Your task to perform on an android device: toggle airplane mode Image 0: 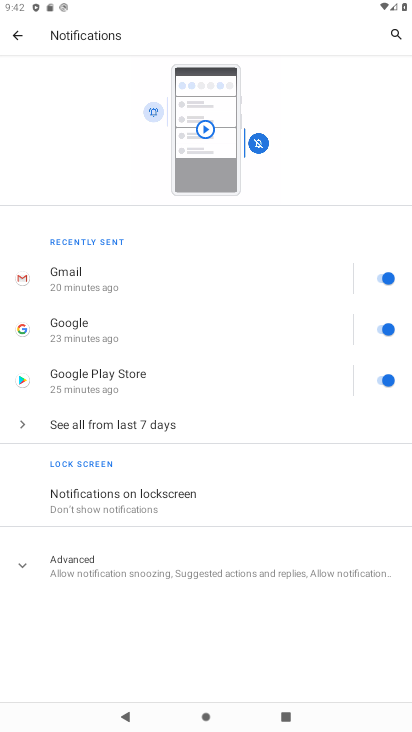
Step 0: press home button
Your task to perform on an android device: toggle airplane mode Image 1: 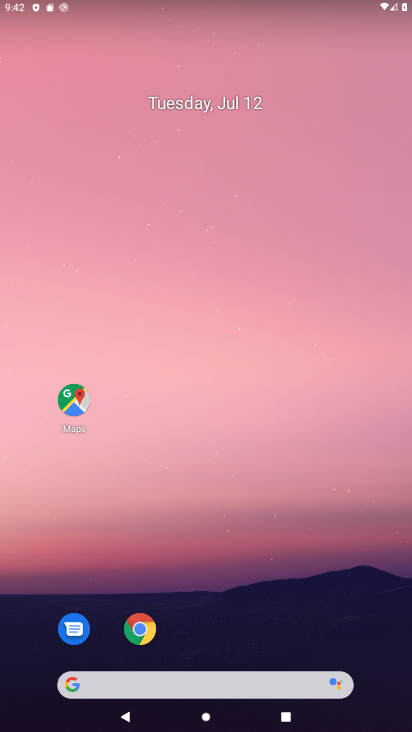
Step 1: drag from (273, 667) to (136, 95)
Your task to perform on an android device: toggle airplane mode Image 2: 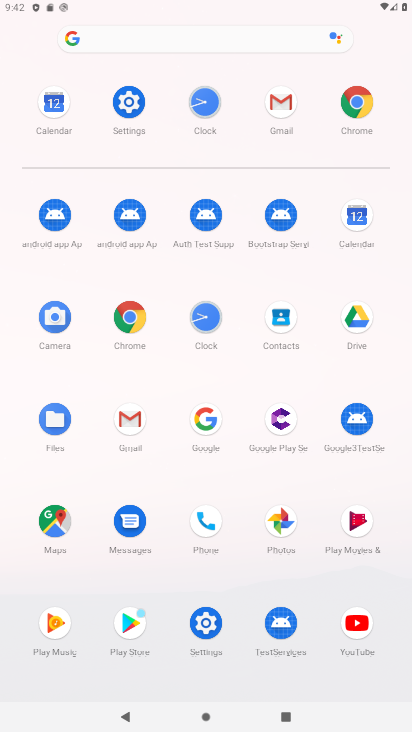
Step 2: click (126, 100)
Your task to perform on an android device: toggle airplane mode Image 3: 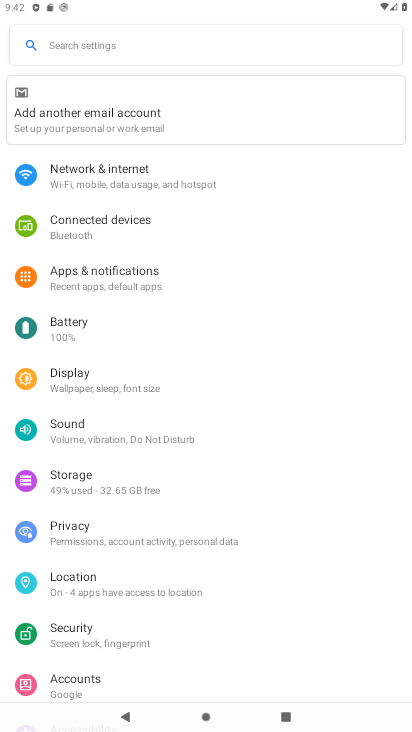
Step 3: click (158, 176)
Your task to perform on an android device: toggle airplane mode Image 4: 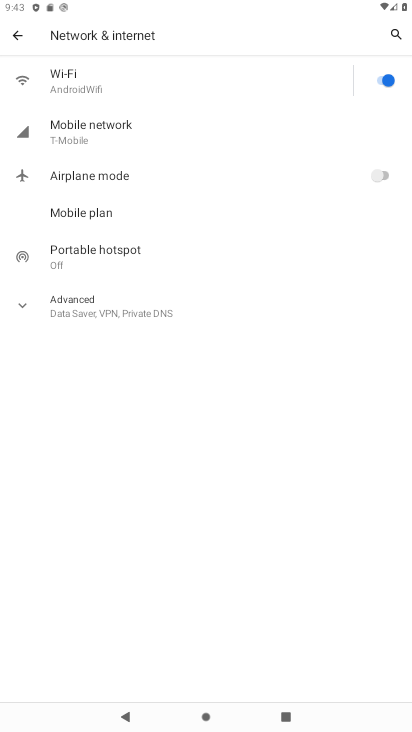
Step 4: click (377, 173)
Your task to perform on an android device: toggle airplane mode Image 5: 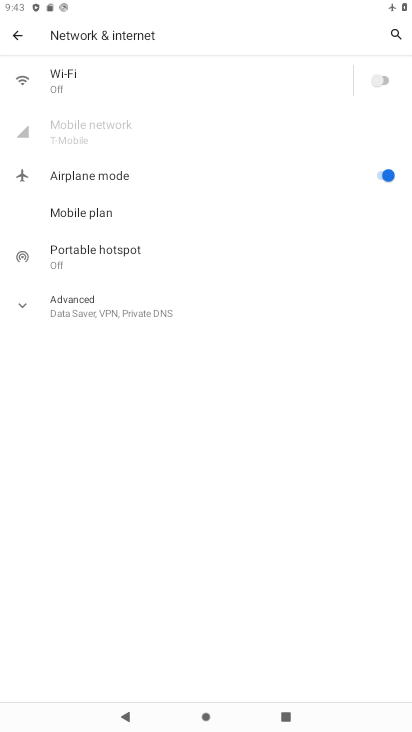
Step 5: task complete